Your task to perform on an android device: Go to display settings Image 0: 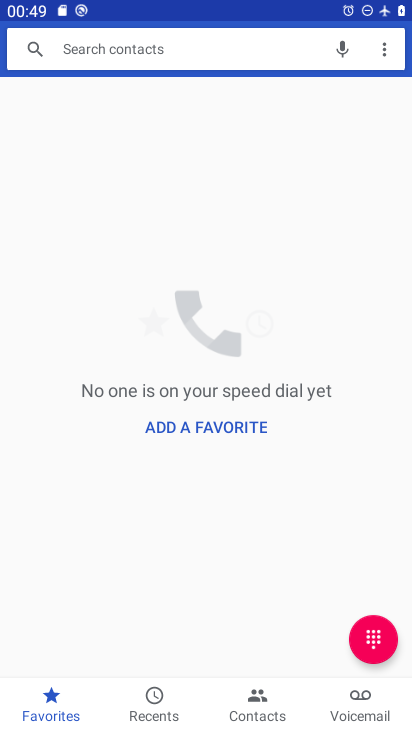
Step 0: press home button
Your task to perform on an android device: Go to display settings Image 1: 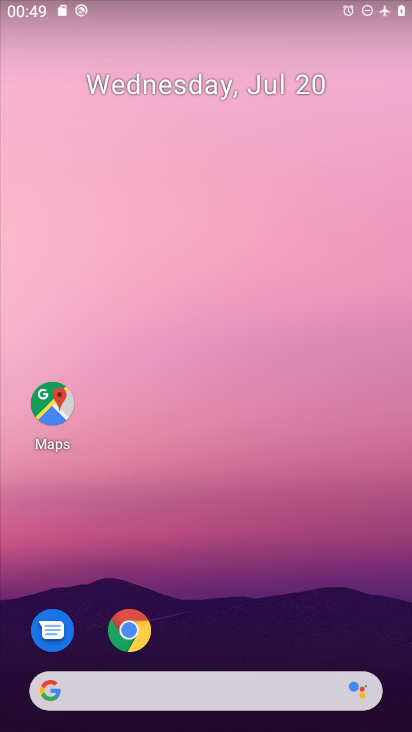
Step 1: drag from (226, 575) to (226, 176)
Your task to perform on an android device: Go to display settings Image 2: 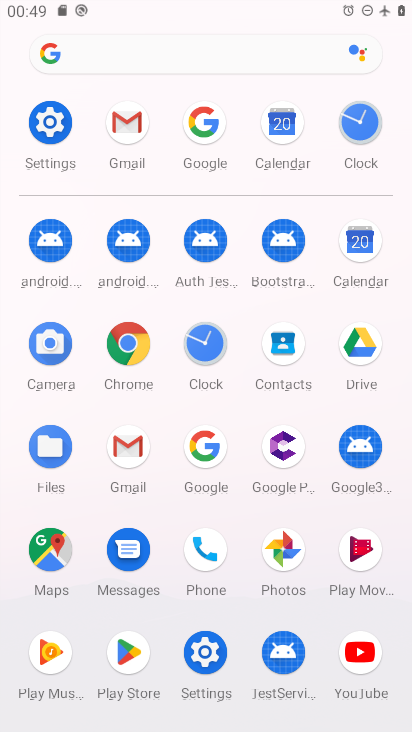
Step 2: click (42, 117)
Your task to perform on an android device: Go to display settings Image 3: 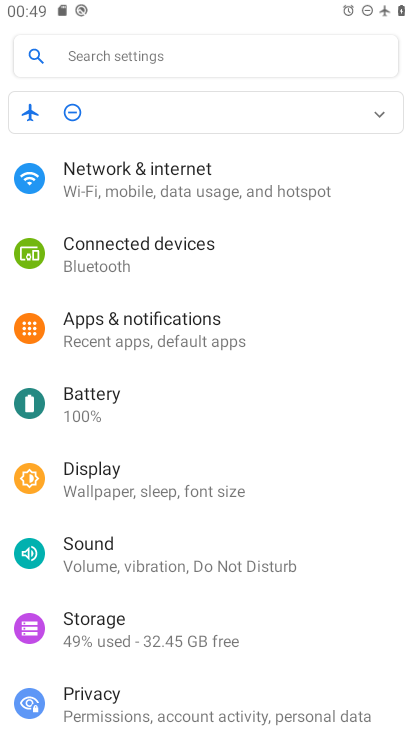
Step 3: click (121, 485)
Your task to perform on an android device: Go to display settings Image 4: 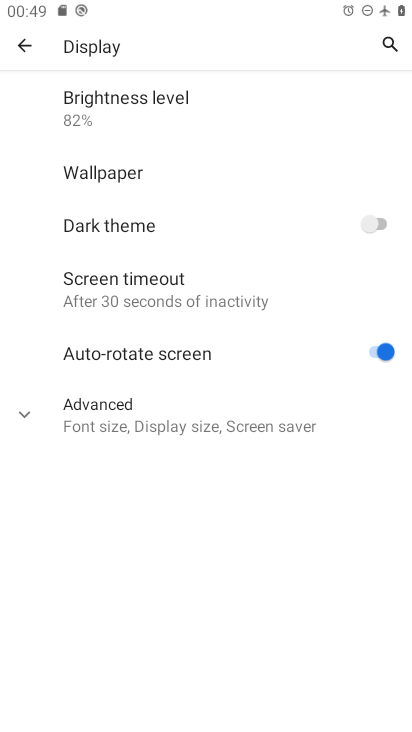
Step 4: task complete